Your task to perform on an android device: turn off notifications in google photos Image 0: 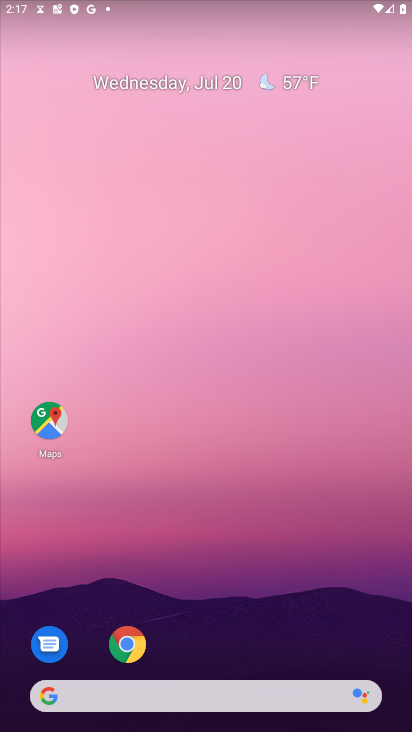
Step 0: press home button
Your task to perform on an android device: turn off notifications in google photos Image 1: 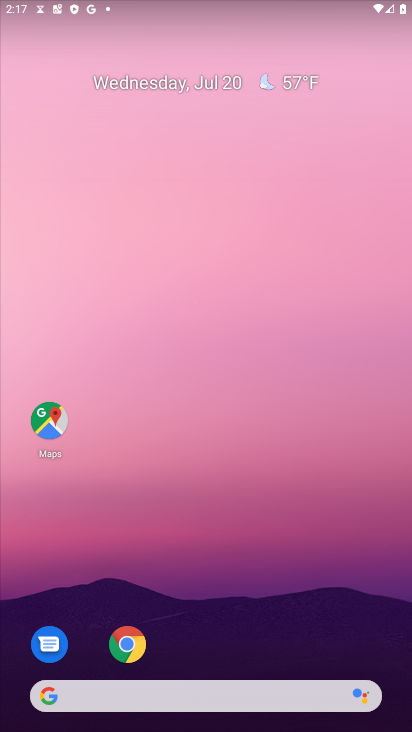
Step 1: drag from (219, 655) to (294, 4)
Your task to perform on an android device: turn off notifications in google photos Image 2: 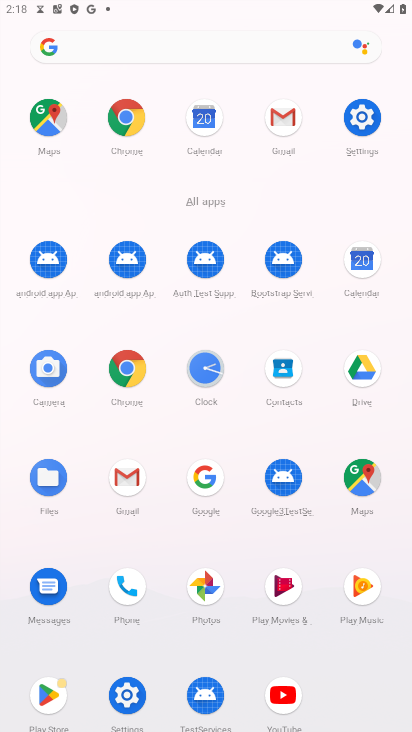
Step 2: click (202, 586)
Your task to perform on an android device: turn off notifications in google photos Image 3: 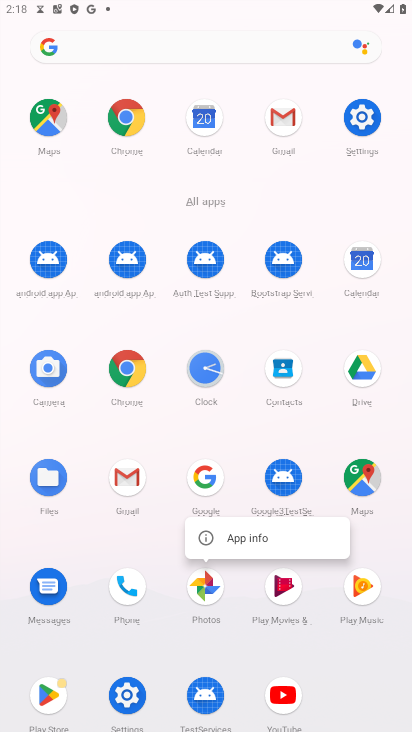
Step 3: click (202, 586)
Your task to perform on an android device: turn off notifications in google photos Image 4: 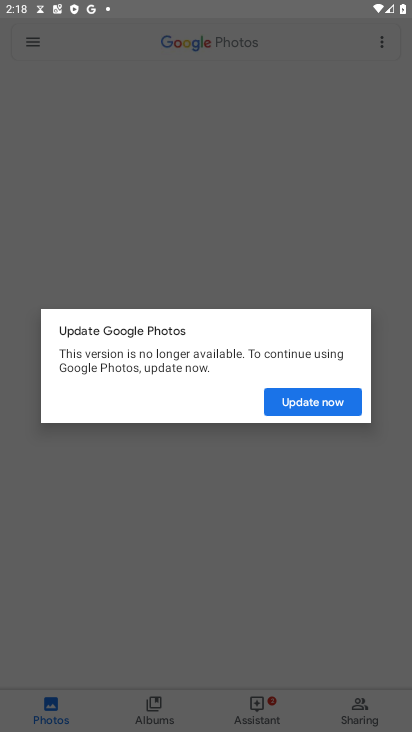
Step 4: click (307, 405)
Your task to perform on an android device: turn off notifications in google photos Image 5: 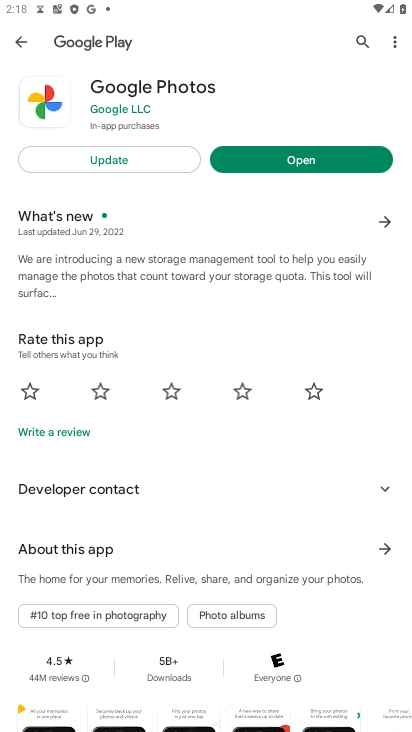
Step 5: click (103, 152)
Your task to perform on an android device: turn off notifications in google photos Image 6: 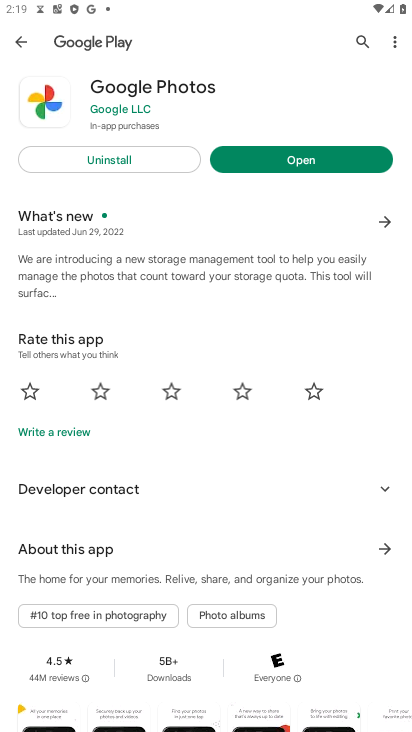
Step 6: click (260, 161)
Your task to perform on an android device: turn off notifications in google photos Image 7: 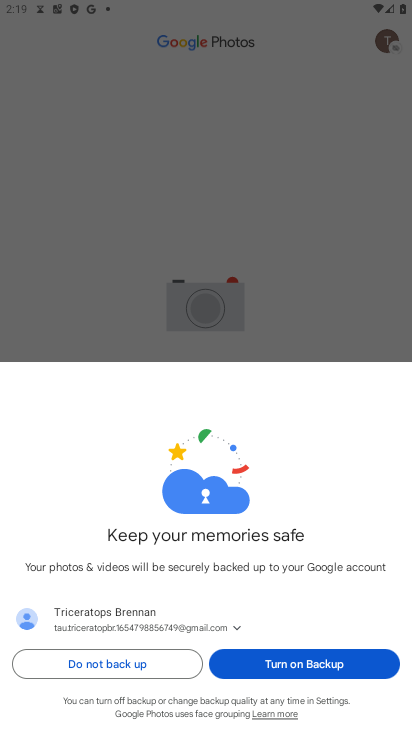
Step 7: click (141, 668)
Your task to perform on an android device: turn off notifications in google photos Image 8: 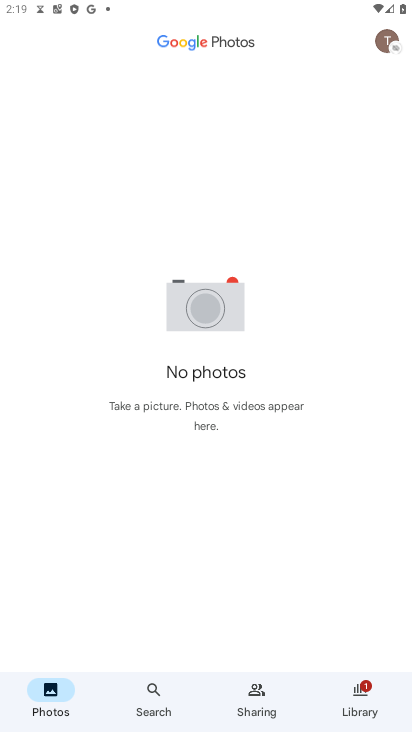
Step 8: click (390, 49)
Your task to perform on an android device: turn off notifications in google photos Image 9: 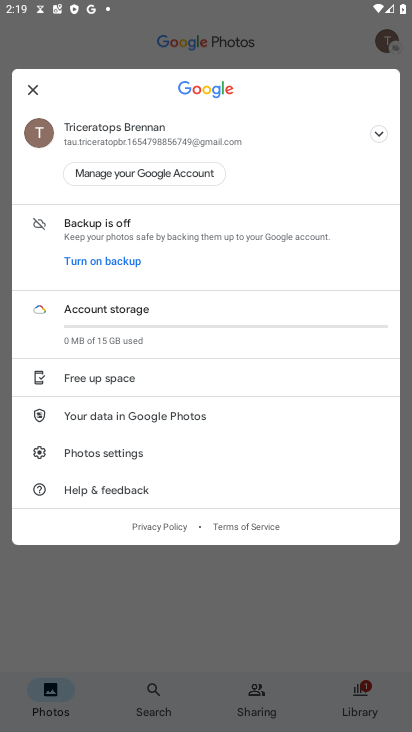
Step 9: click (92, 450)
Your task to perform on an android device: turn off notifications in google photos Image 10: 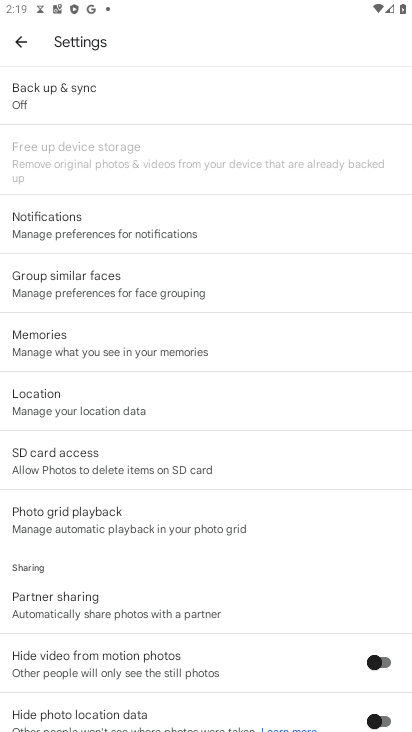
Step 10: click (65, 229)
Your task to perform on an android device: turn off notifications in google photos Image 11: 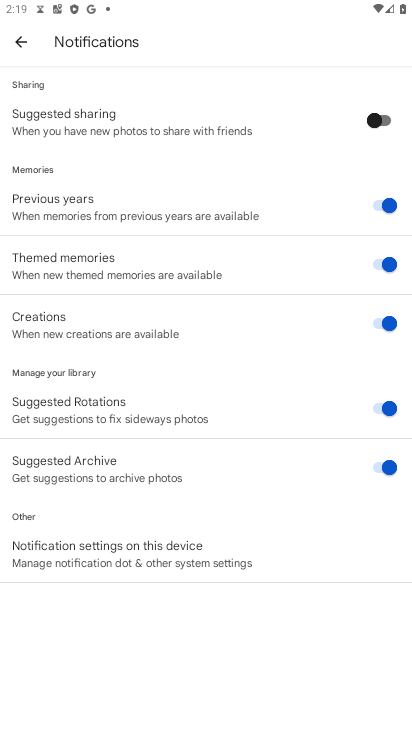
Step 11: task complete